Your task to perform on an android device: Open the Play Movies app and select the watchlist tab. Image 0: 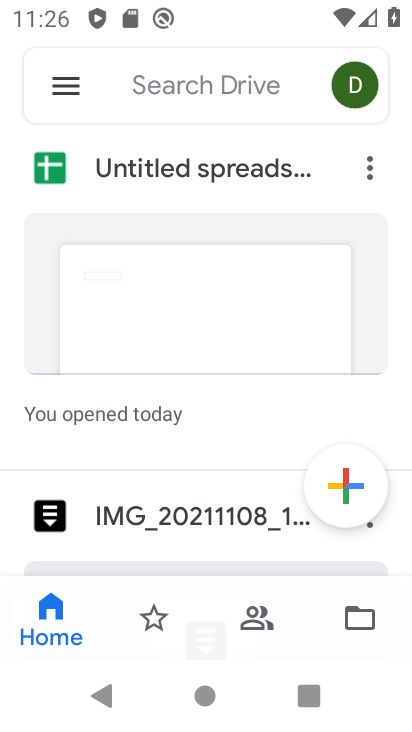
Step 0: press home button
Your task to perform on an android device: Open the Play Movies app and select the watchlist tab. Image 1: 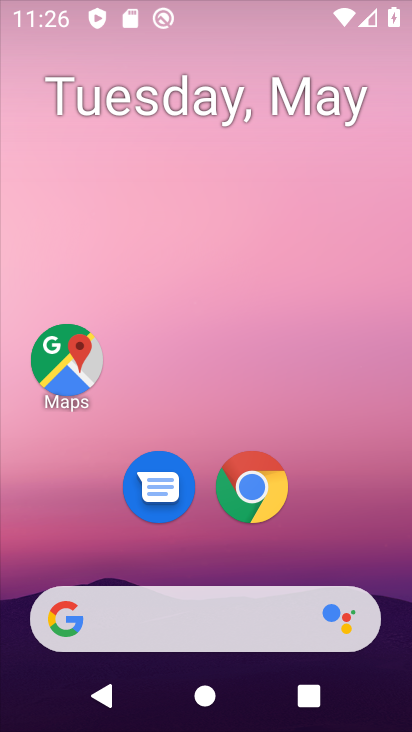
Step 1: drag from (273, 571) to (242, 174)
Your task to perform on an android device: Open the Play Movies app and select the watchlist tab. Image 2: 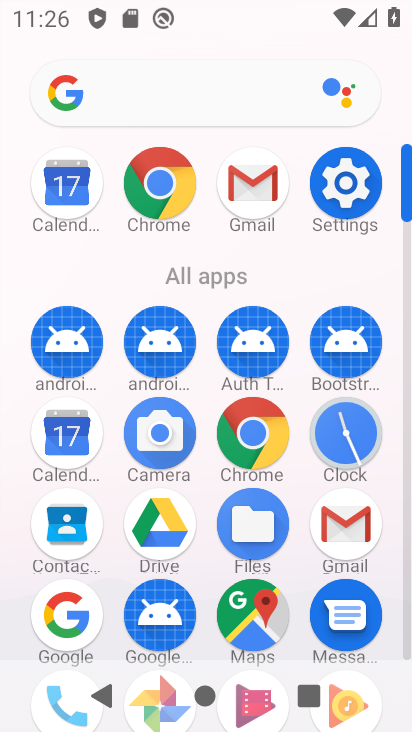
Step 2: drag from (297, 621) to (260, 275)
Your task to perform on an android device: Open the Play Movies app and select the watchlist tab. Image 3: 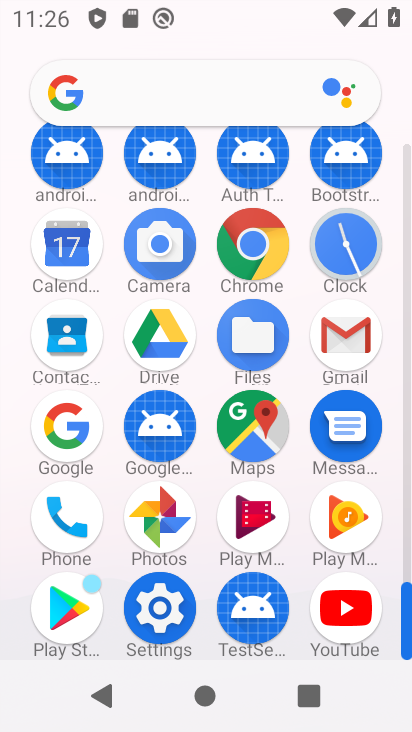
Step 3: click (231, 513)
Your task to perform on an android device: Open the Play Movies app and select the watchlist tab. Image 4: 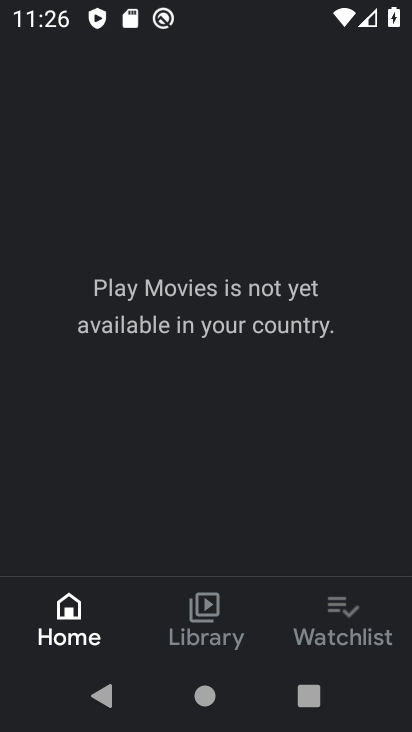
Step 4: click (366, 615)
Your task to perform on an android device: Open the Play Movies app and select the watchlist tab. Image 5: 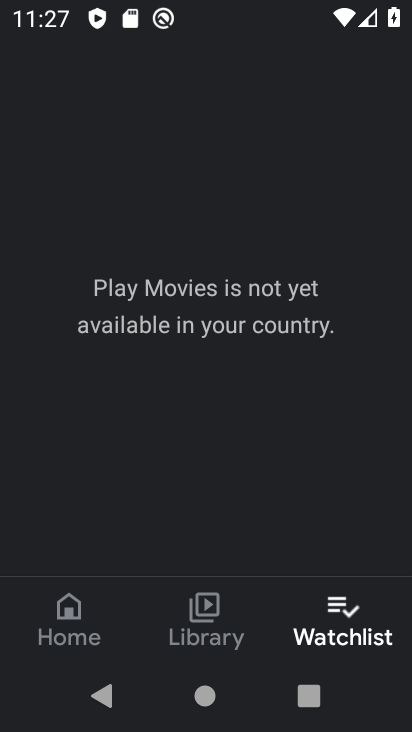
Step 5: task complete